Your task to perform on an android device: Open wifi settings Image 0: 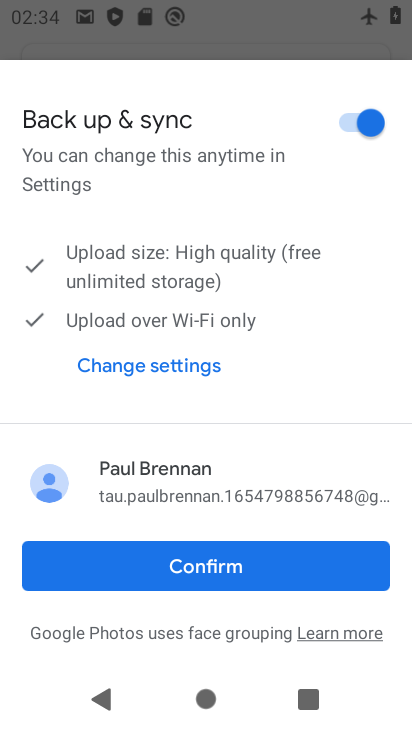
Step 0: press home button
Your task to perform on an android device: Open wifi settings Image 1: 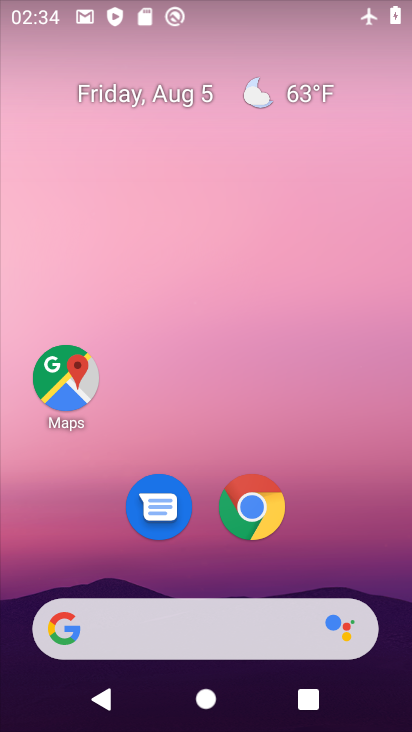
Step 1: drag from (217, 546) to (232, 3)
Your task to perform on an android device: Open wifi settings Image 2: 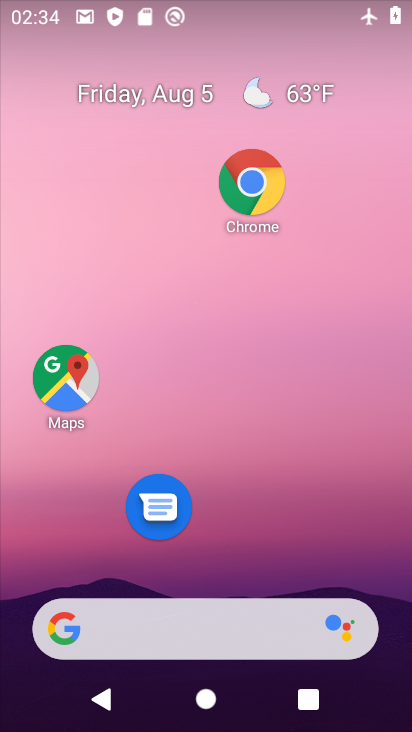
Step 2: drag from (241, 574) to (239, 73)
Your task to perform on an android device: Open wifi settings Image 3: 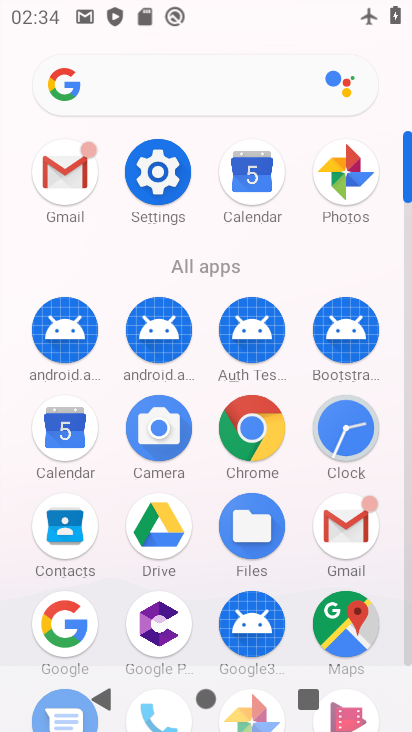
Step 3: click (161, 185)
Your task to perform on an android device: Open wifi settings Image 4: 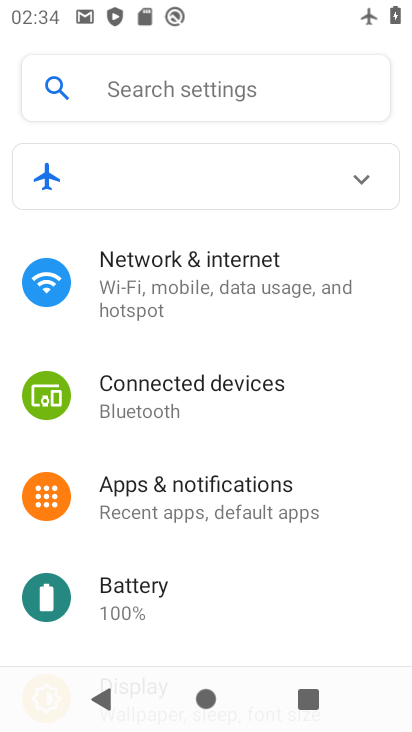
Step 4: click (174, 309)
Your task to perform on an android device: Open wifi settings Image 5: 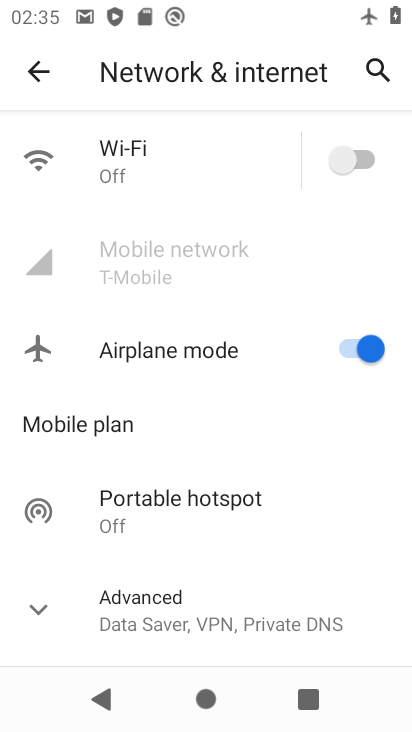
Step 5: click (160, 165)
Your task to perform on an android device: Open wifi settings Image 6: 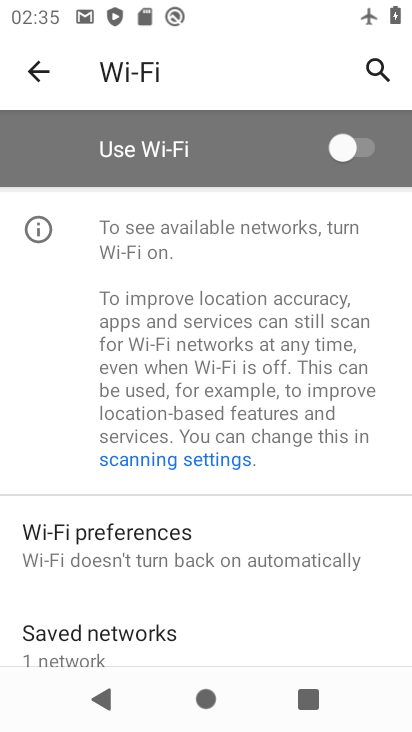
Step 6: click (383, 147)
Your task to perform on an android device: Open wifi settings Image 7: 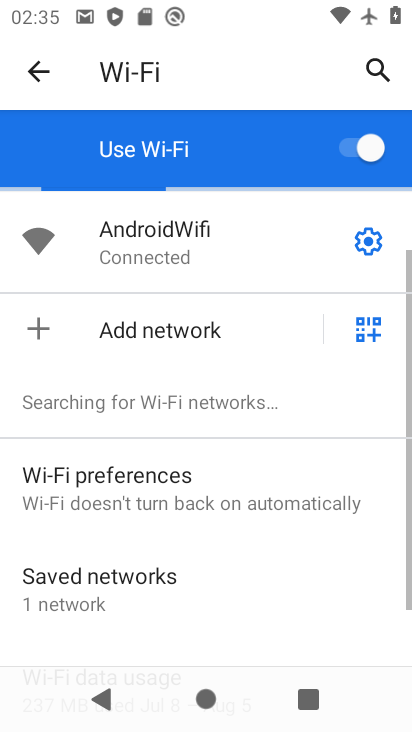
Step 7: task complete